Your task to perform on an android device: change alarm snooze length Image 0: 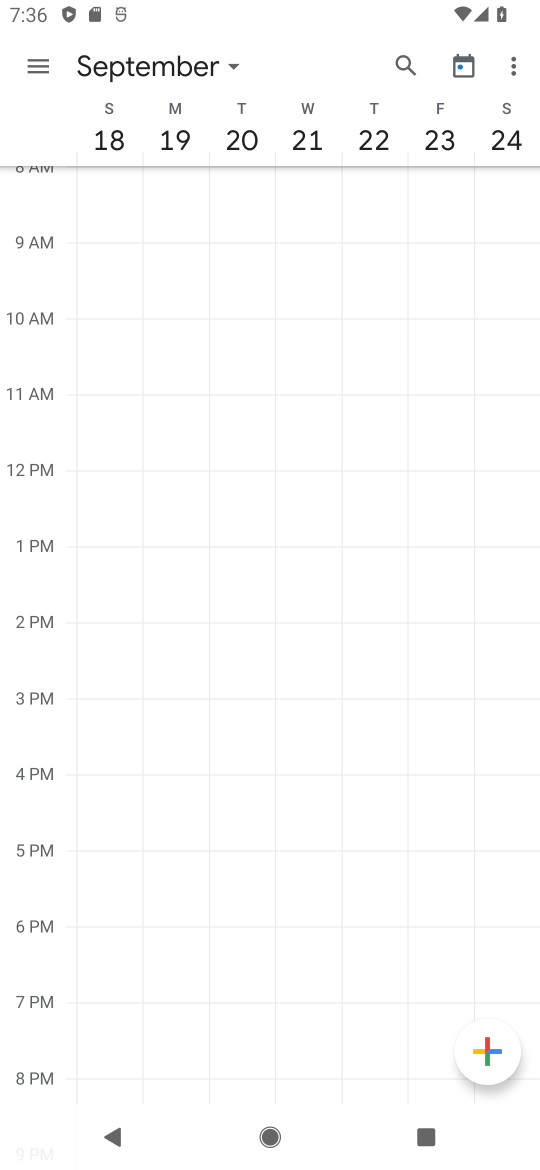
Step 0: press home button
Your task to perform on an android device: change alarm snooze length Image 1: 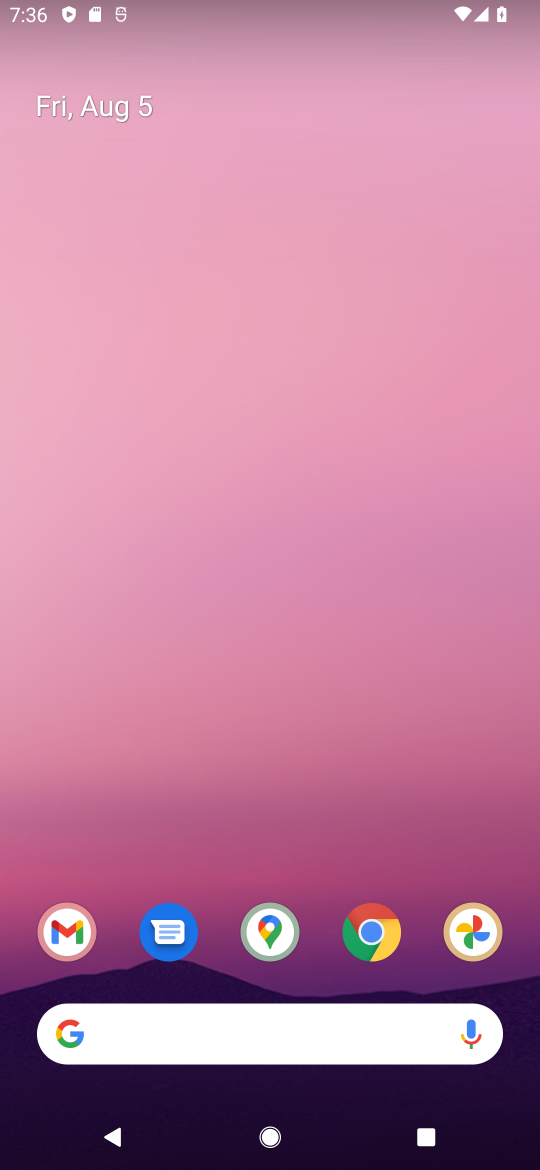
Step 1: drag from (369, 820) to (331, 49)
Your task to perform on an android device: change alarm snooze length Image 2: 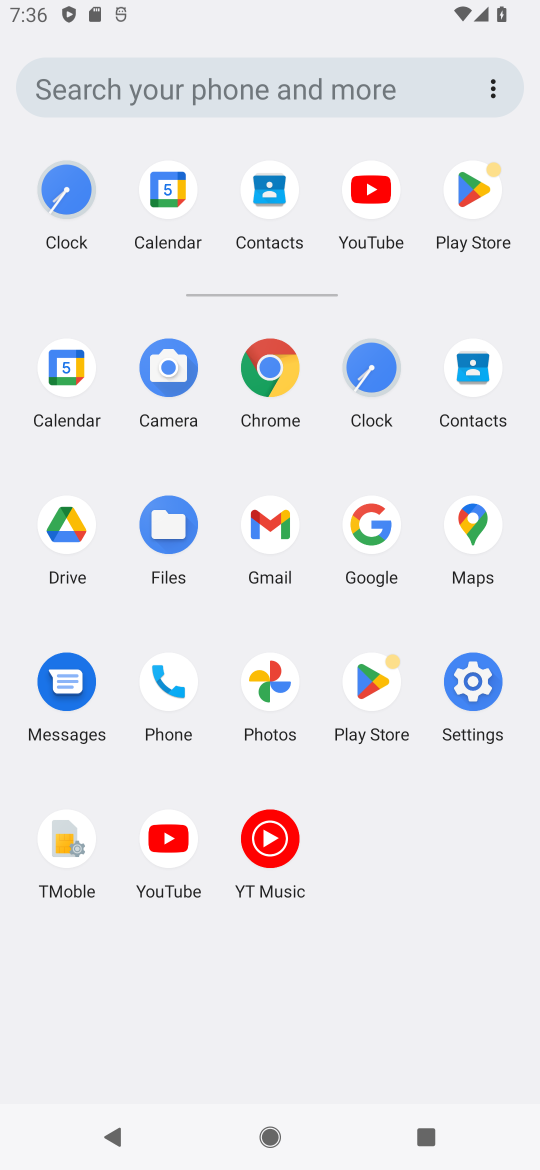
Step 2: click (368, 370)
Your task to perform on an android device: change alarm snooze length Image 3: 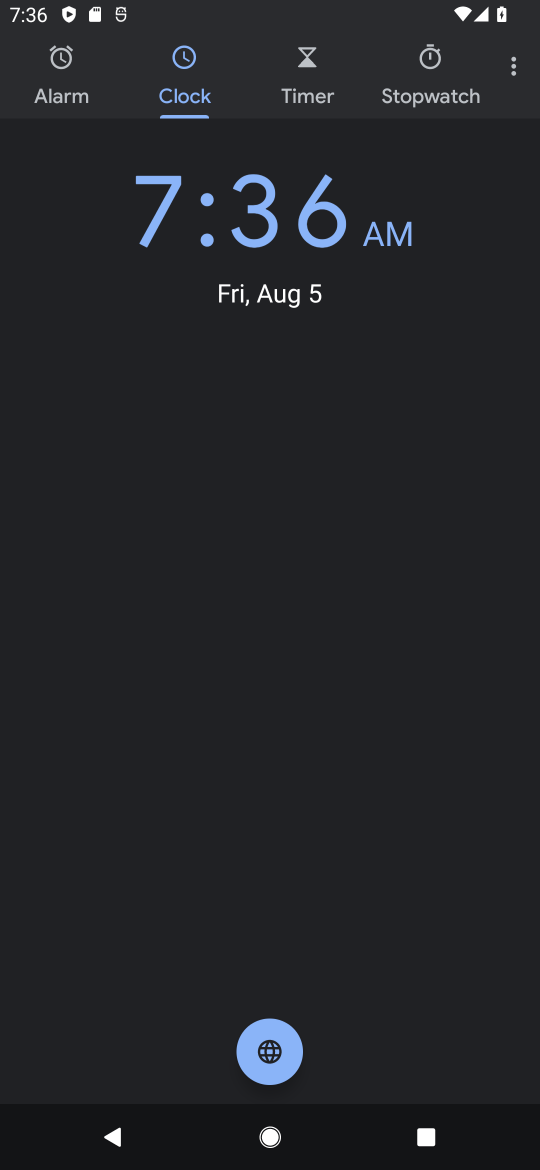
Step 3: click (505, 67)
Your task to perform on an android device: change alarm snooze length Image 4: 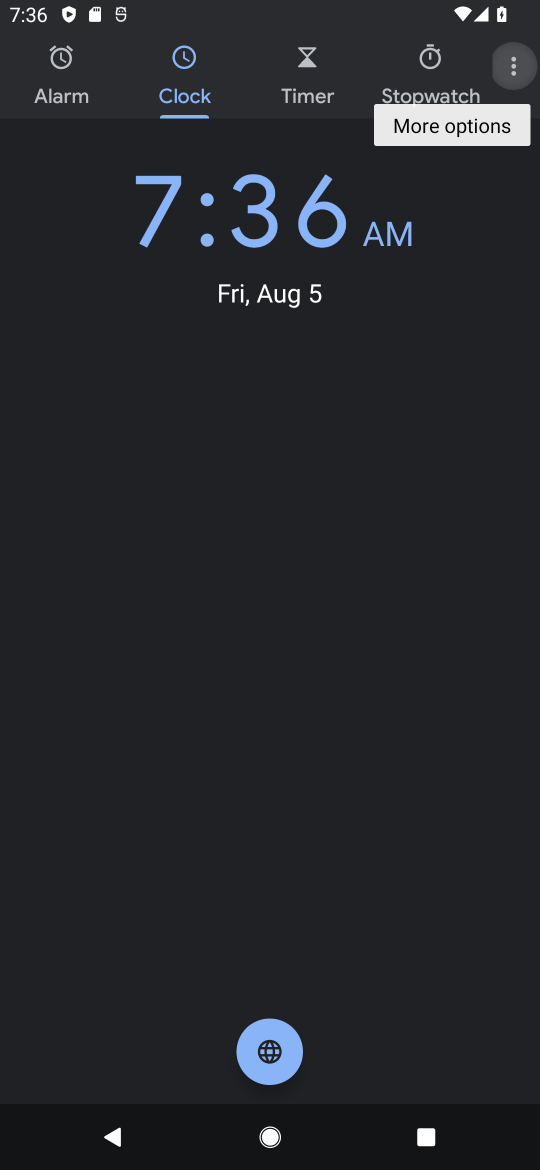
Step 4: click (505, 67)
Your task to perform on an android device: change alarm snooze length Image 5: 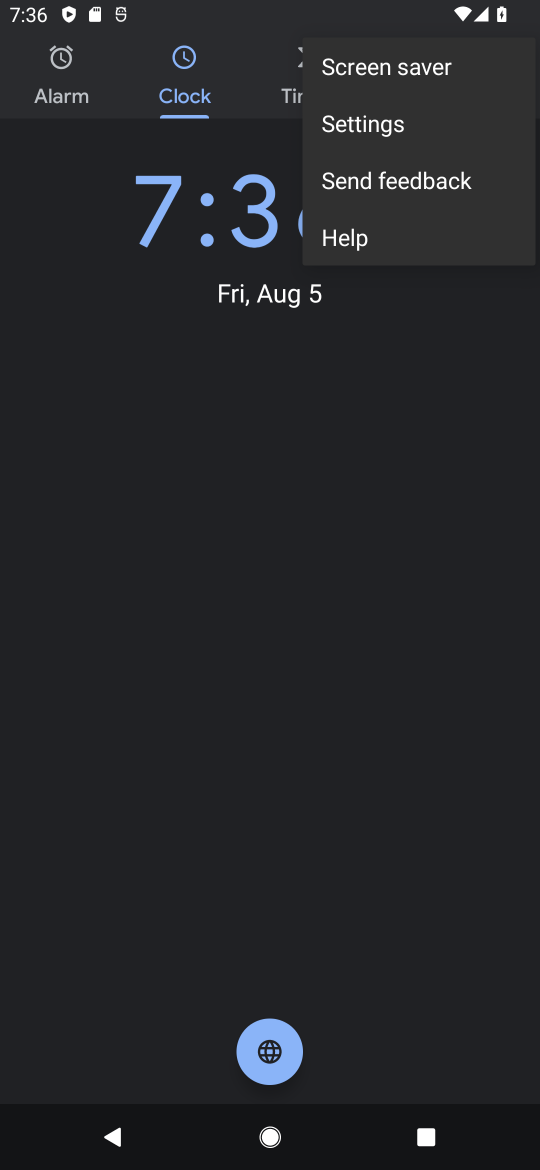
Step 5: click (375, 138)
Your task to perform on an android device: change alarm snooze length Image 6: 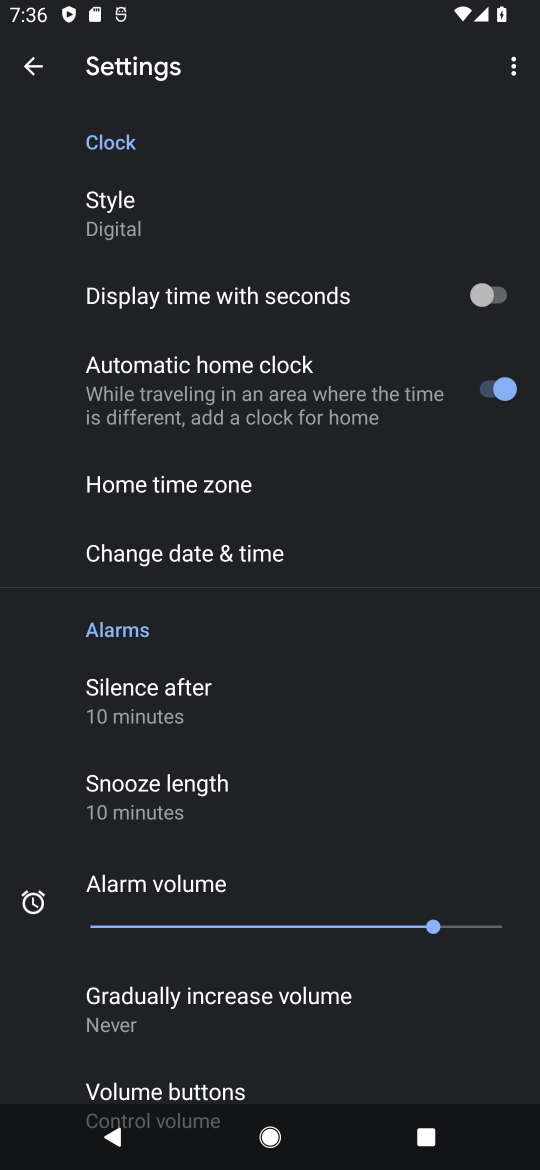
Step 6: click (170, 789)
Your task to perform on an android device: change alarm snooze length Image 7: 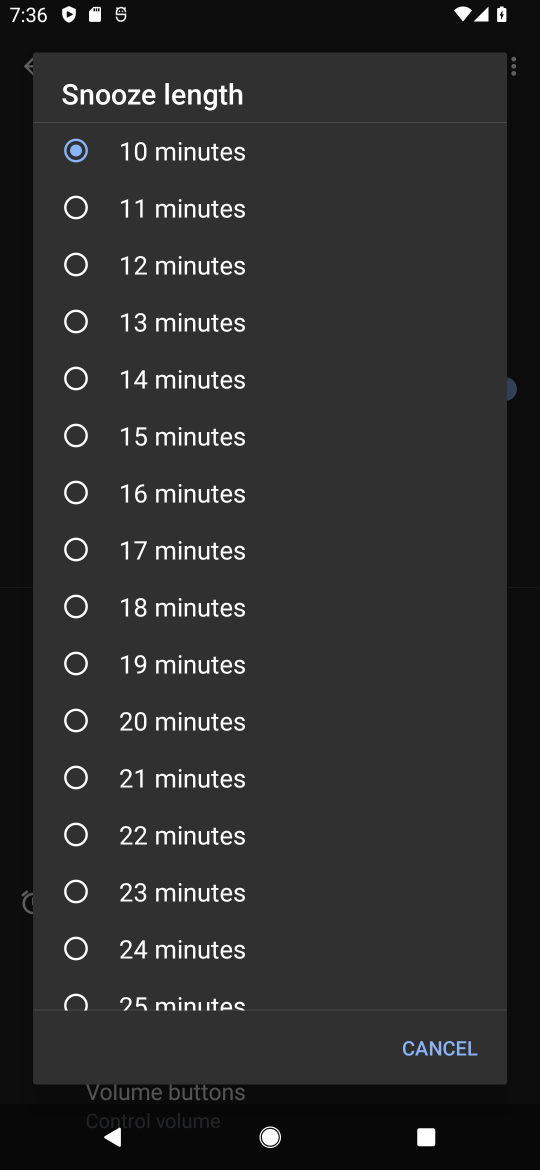
Step 7: click (207, 220)
Your task to perform on an android device: change alarm snooze length Image 8: 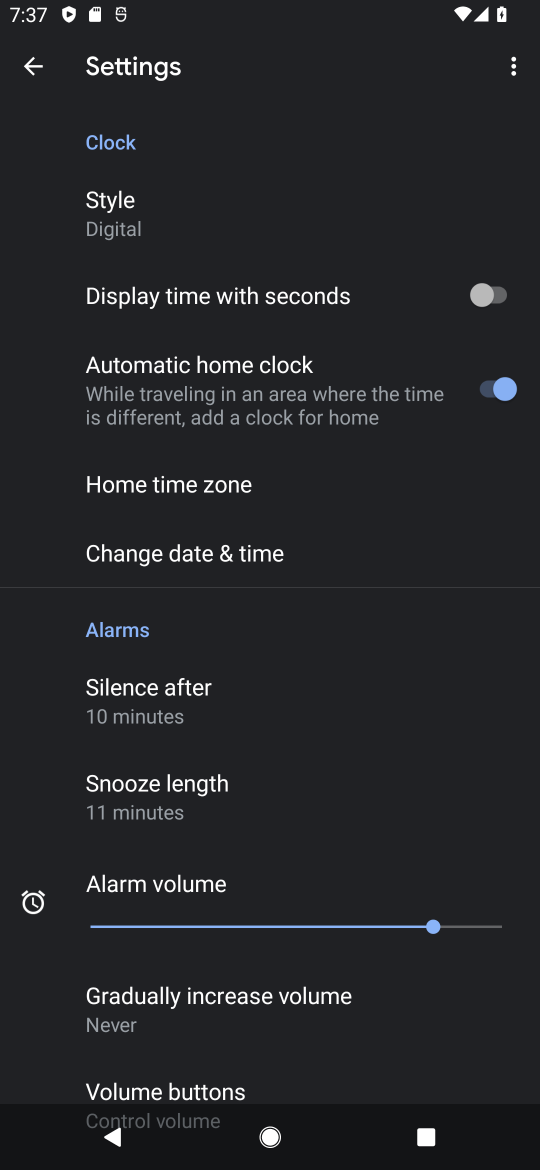
Step 8: task complete